Your task to perform on an android device: change your default location settings in chrome Image 0: 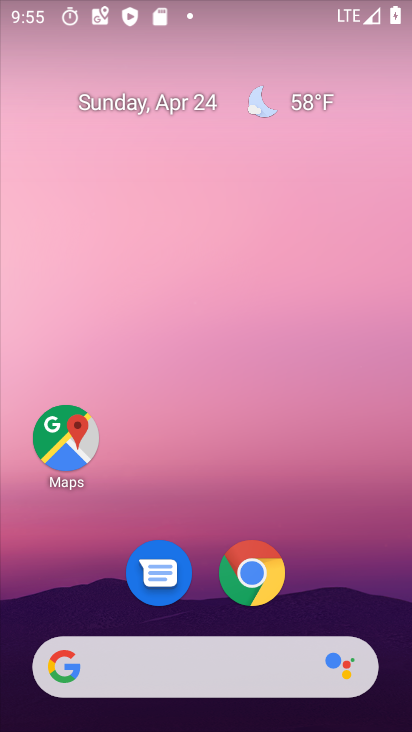
Step 0: drag from (338, 579) to (366, 50)
Your task to perform on an android device: change your default location settings in chrome Image 1: 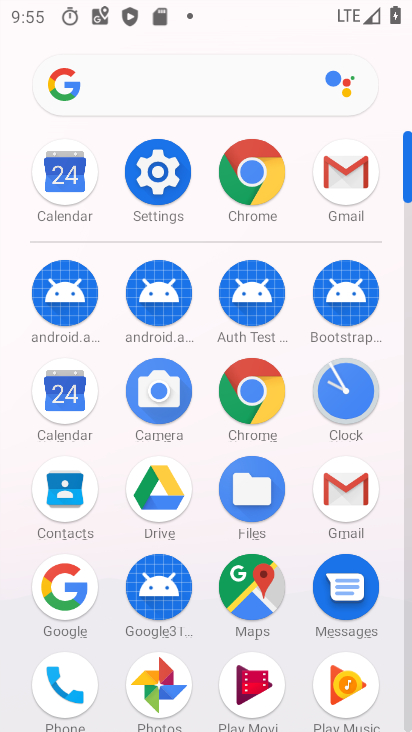
Step 1: click (241, 415)
Your task to perform on an android device: change your default location settings in chrome Image 2: 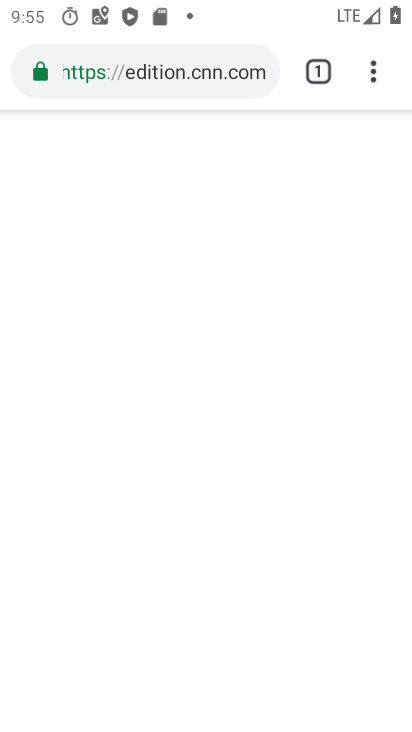
Step 2: drag from (362, 67) to (195, 572)
Your task to perform on an android device: change your default location settings in chrome Image 3: 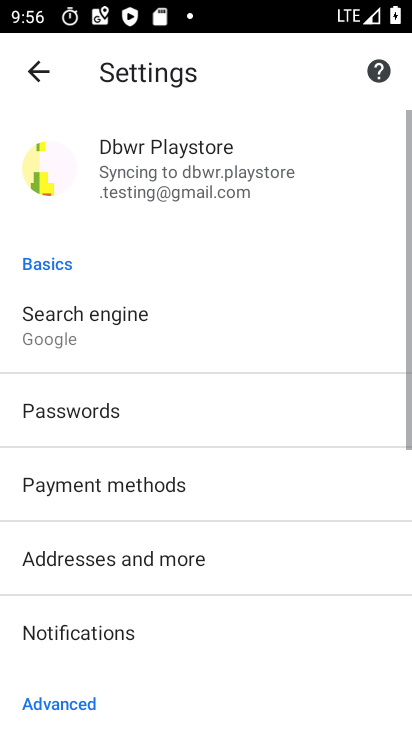
Step 3: drag from (231, 631) to (262, 464)
Your task to perform on an android device: change your default location settings in chrome Image 4: 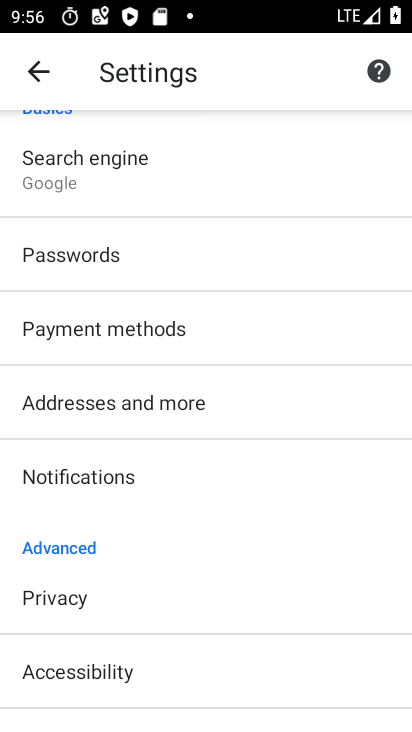
Step 4: drag from (210, 574) to (299, 229)
Your task to perform on an android device: change your default location settings in chrome Image 5: 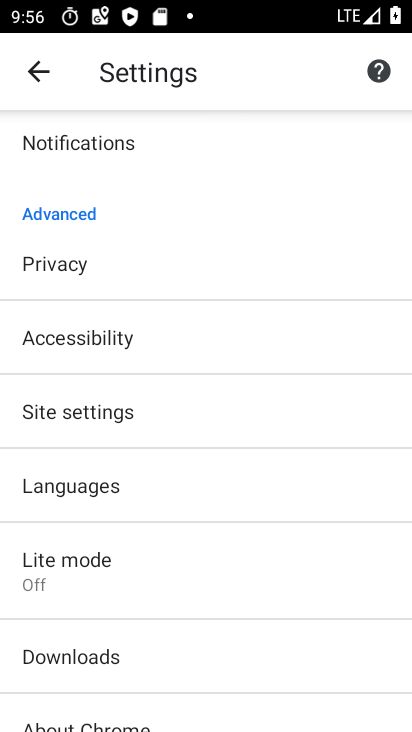
Step 5: click (121, 418)
Your task to perform on an android device: change your default location settings in chrome Image 6: 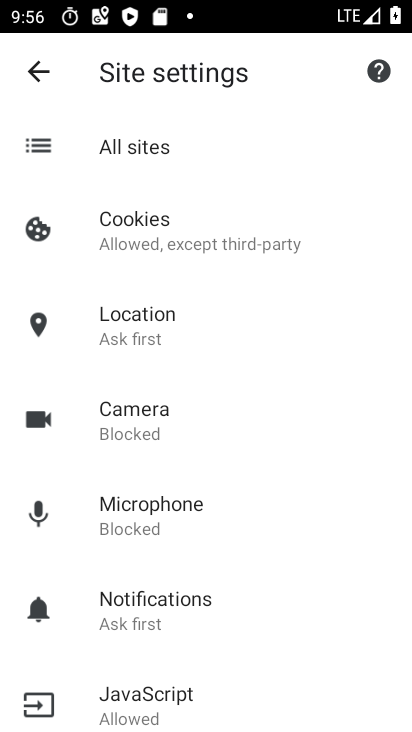
Step 6: click (156, 319)
Your task to perform on an android device: change your default location settings in chrome Image 7: 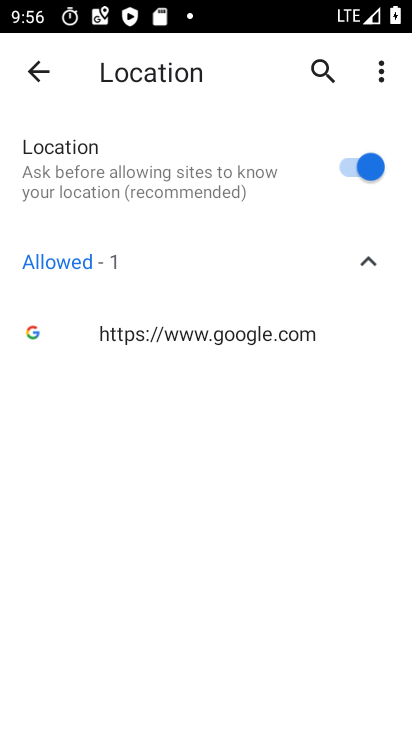
Step 7: click (353, 160)
Your task to perform on an android device: change your default location settings in chrome Image 8: 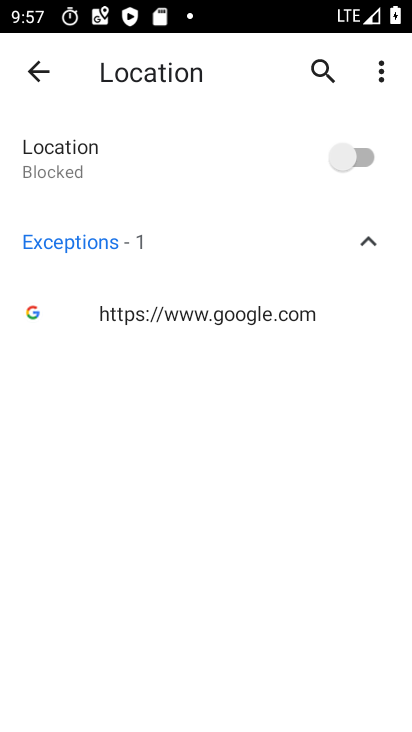
Step 8: task complete